Your task to perform on an android device: turn on translation in the chrome app Image 0: 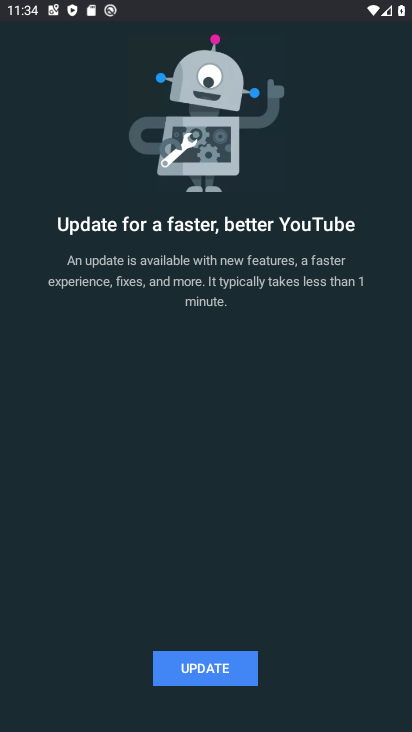
Step 0: press home button
Your task to perform on an android device: turn on translation in the chrome app Image 1: 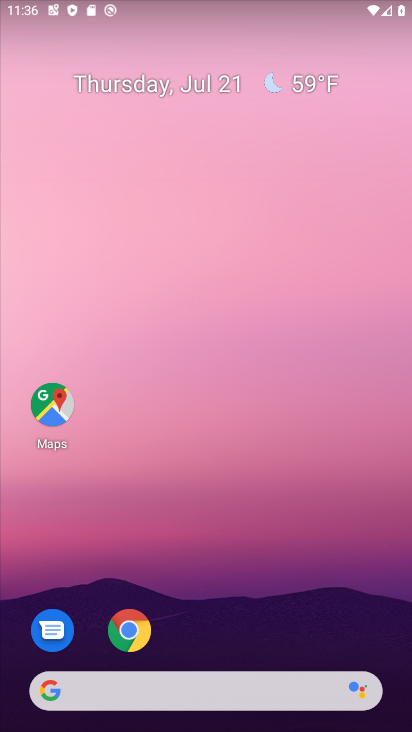
Step 1: drag from (132, 676) to (132, 373)
Your task to perform on an android device: turn on translation in the chrome app Image 2: 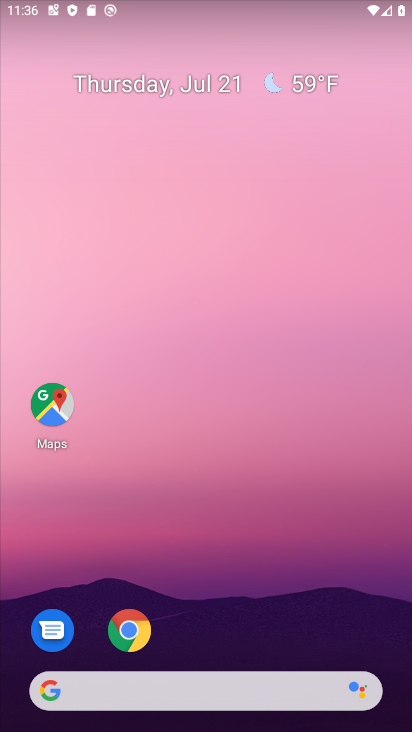
Step 2: click (142, 650)
Your task to perform on an android device: turn on translation in the chrome app Image 3: 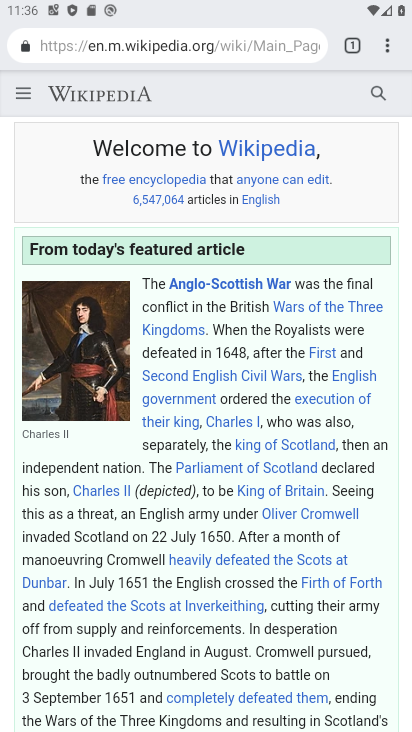
Step 3: click (383, 43)
Your task to perform on an android device: turn on translation in the chrome app Image 4: 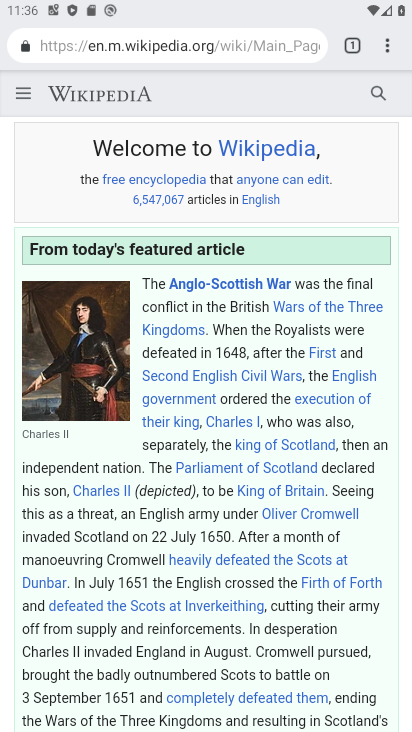
Step 4: click (390, 40)
Your task to perform on an android device: turn on translation in the chrome app Image 5: 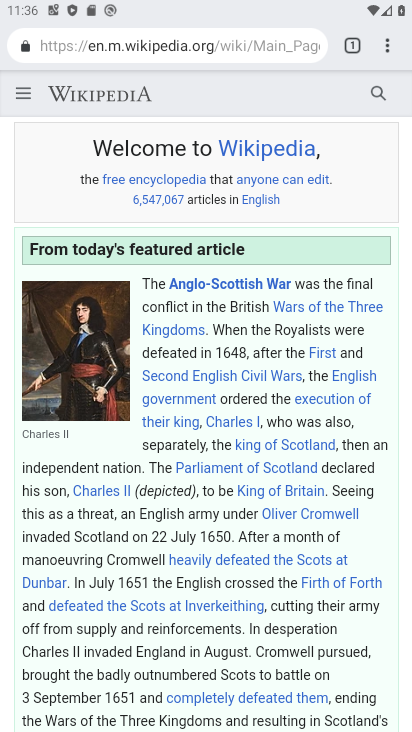
Step 5: click (383, 50)
Your task to perform on an android device: turn on translation in the chrome app Image 6: 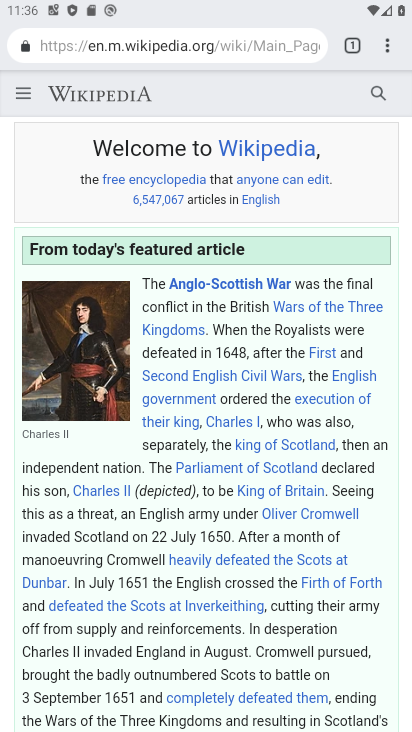
Step 6: click (392, 44)
Your task to perform on an android device: turn on translation in the chrome app Image 7: 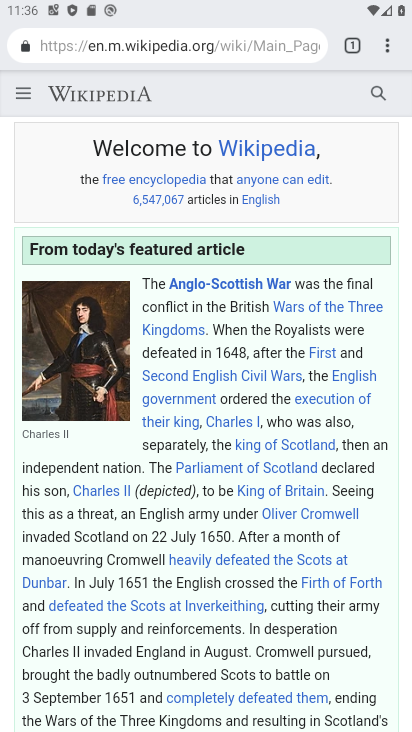
Step 7: click (392, 44)
Your task to perform on an android device: turn on translation in the chrome app Image 8: 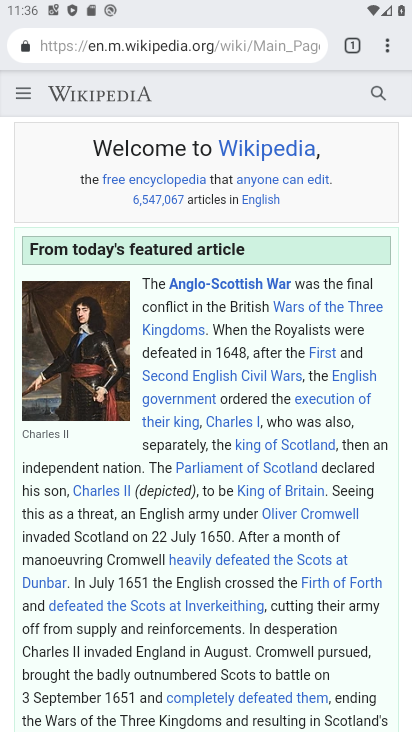
Step 8: click (388, 43)
Your task to perform on an android device: turn on translation in the chrome app Image 9: 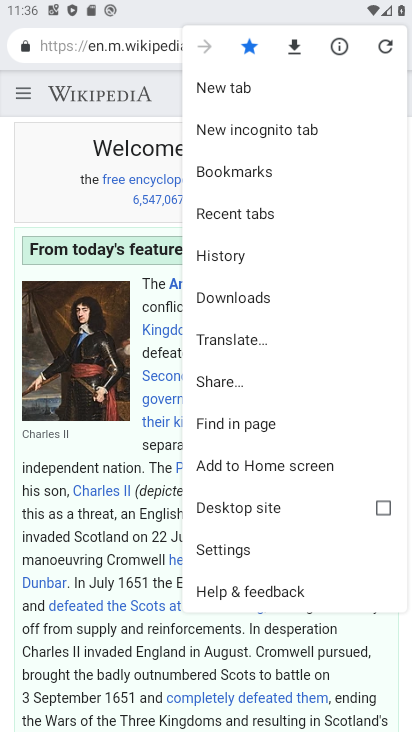
Step 9: click (232, 547)
Your task to perform on an android device: turn on translation in the chrome app Image 10: 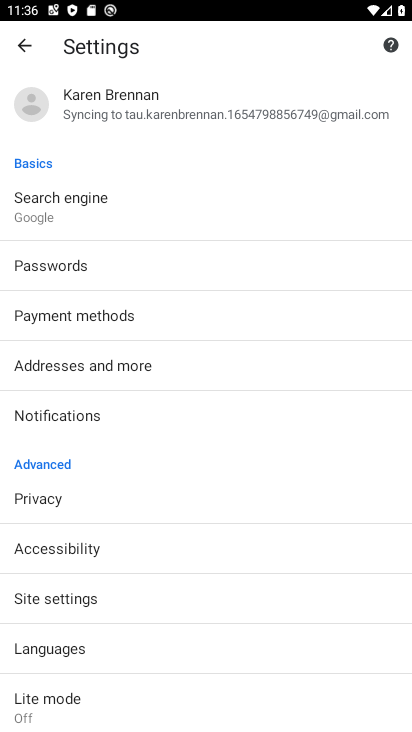
Step 10: click (51, 646)
Your task to perform on an android device: turn on translation in the chrome app Image 11: 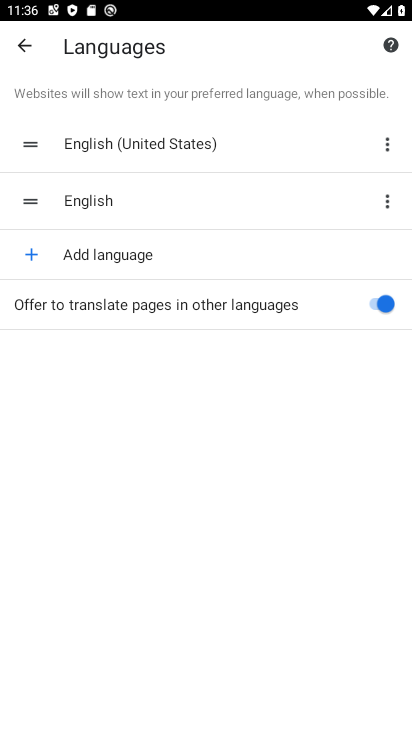
Step 11: task complete